Your task to perform on an android device: add a contact Image 0: 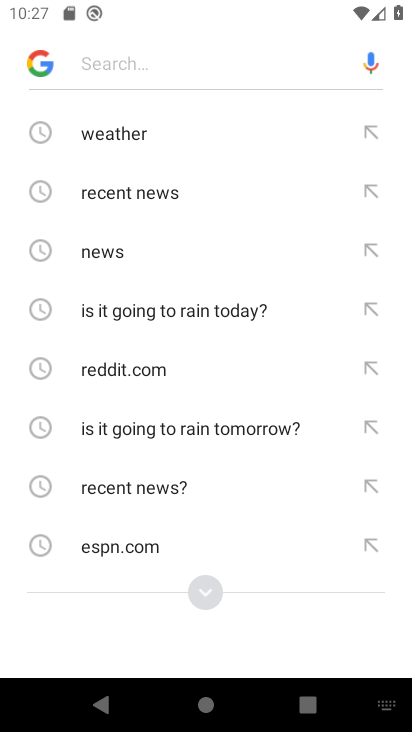
Step 0: press home button
Your task to perform on an android device: add a contact Image 1: 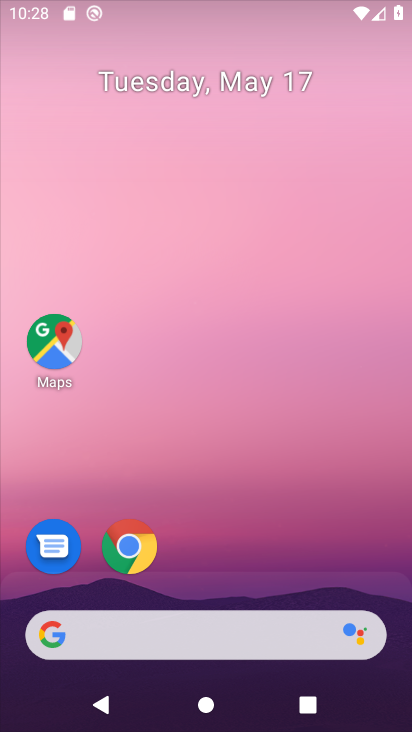
Step 1: drag from (225, 306) to (228, 100)
Your task to perform on an android device: add a contact Image 2: 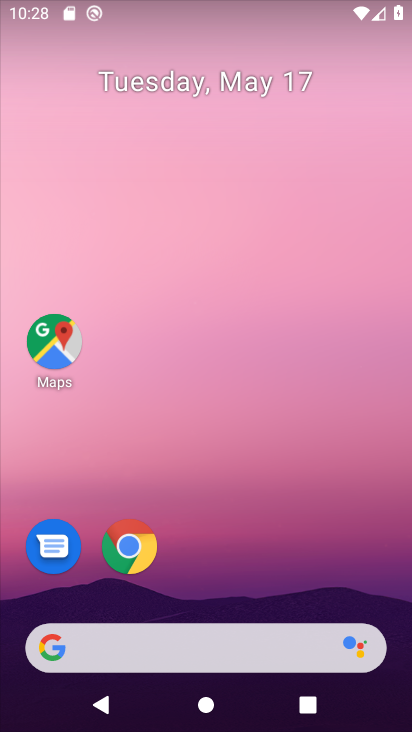
Step 2: drag from (220, 406) to (252, 106)
Your task to perform on an android device: add a contact Image 3: 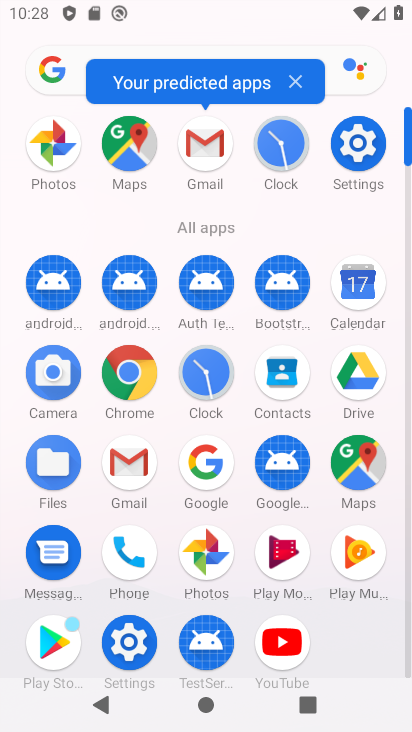
Step 3: click (274, 390)
Your task to perform on an android device: add a contact Image 4: 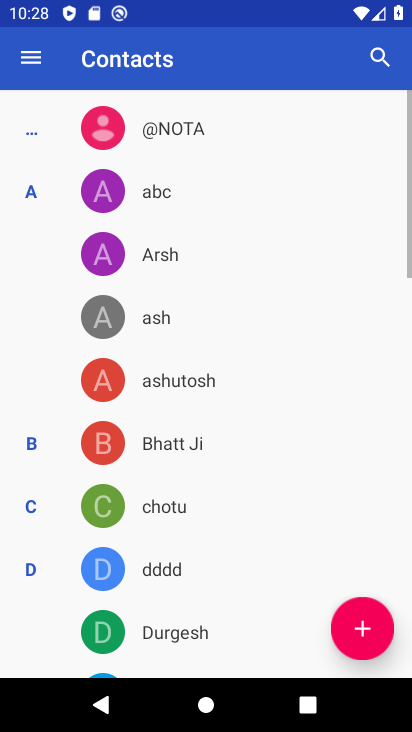
Step 4: click (354, 633)
Your task to perform on an android device: add a contact Image 5: 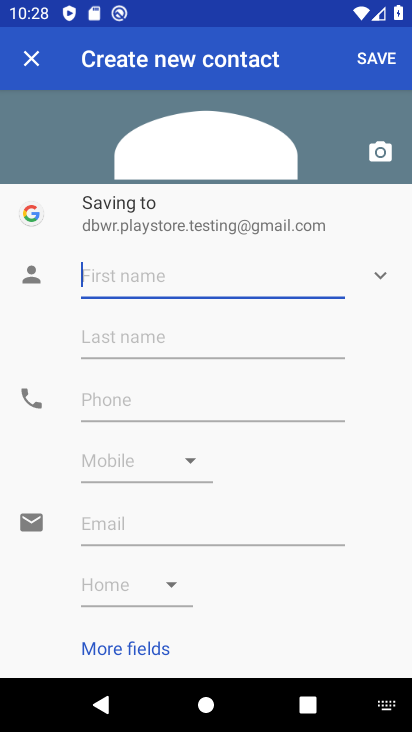
Step 5: type "gudiya"
Your task to perform on an android device: add a contact Image 6: 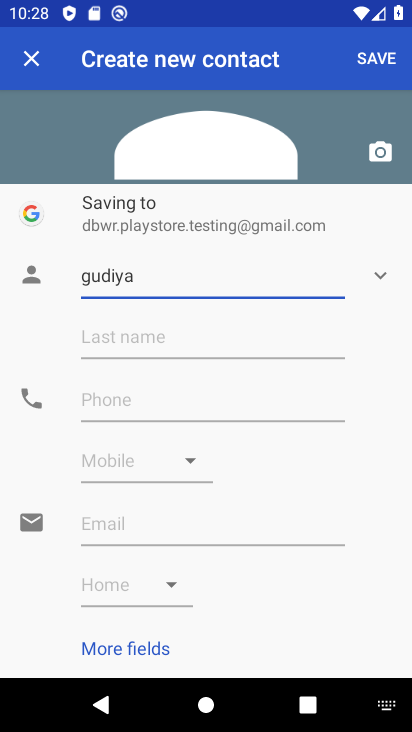
Step 6: click (139, 397)
Your task to perform on an android device: add a contact Image 7: 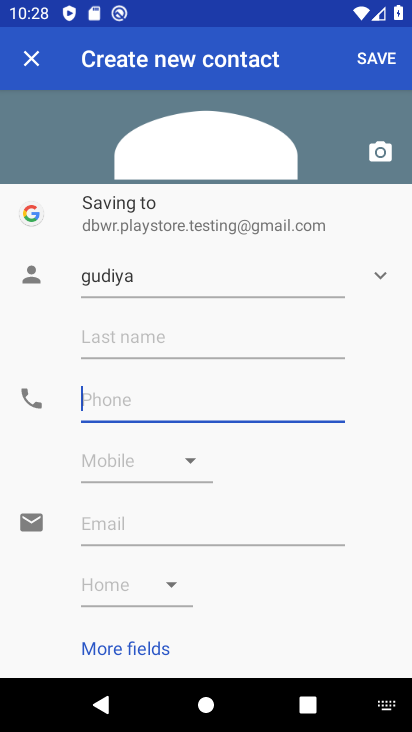
Step 7: type "7564843241"
Your task to perform on an android device: add a contact Image 8: 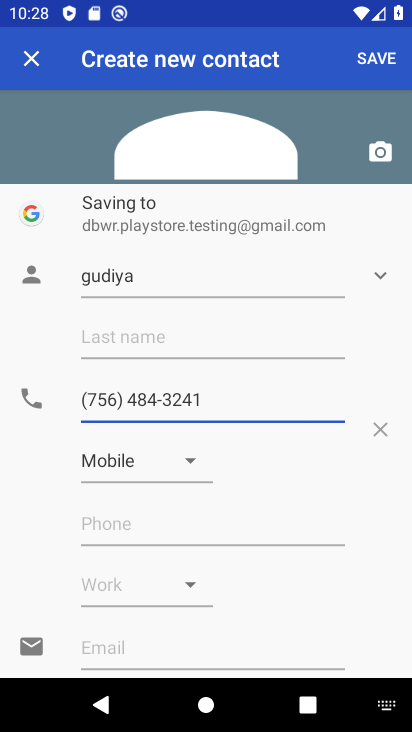
Step 8: click (380, 61)
Your task to perform on an android device: add a contact Image 9: 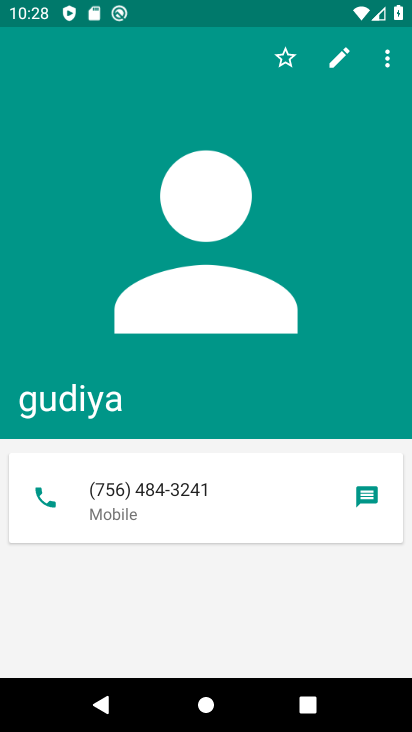
Step 9: task complete